Your task to perform on an android device: Show me productivity apps on the Play Store Image 0: 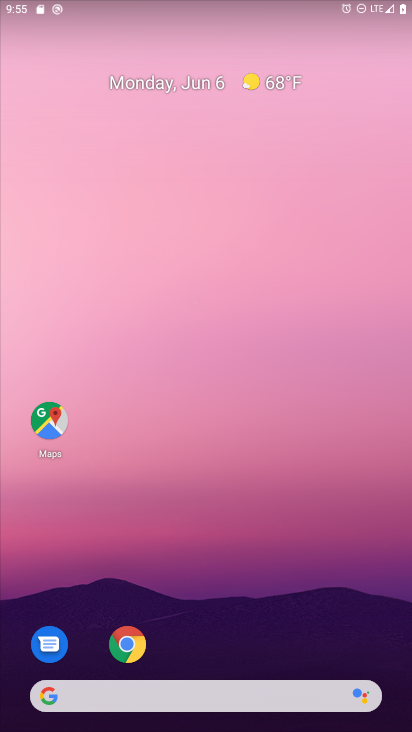
Step 0: drag from (242, 719) to (182, 100)
Your task to perform on an android device: Show me productivity apps on the Play Store Image 1: 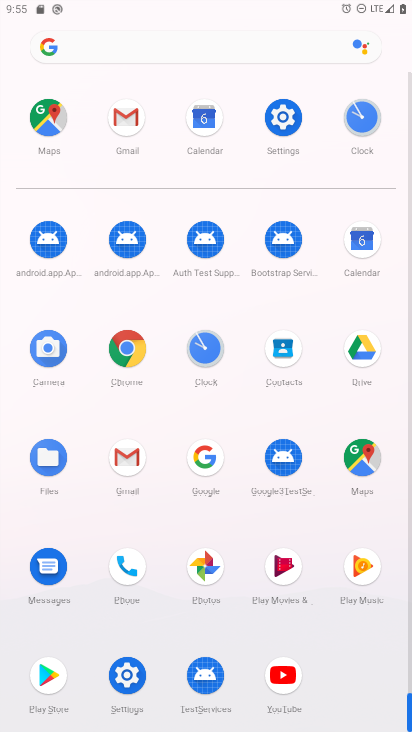
Step 1: click (48, 660)
Your task to perform on an android device: Show me productivity apps on the Play Store Image 2: 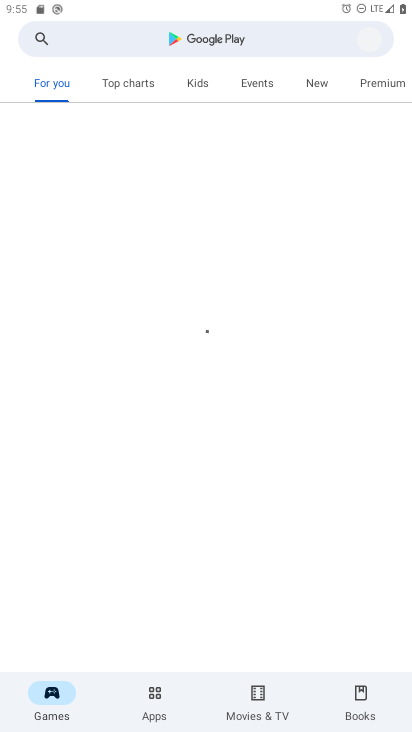
Step 2: click (210, 30)
Your task to perform on an android device: Show me productivity apps on the Play Store Image 3: 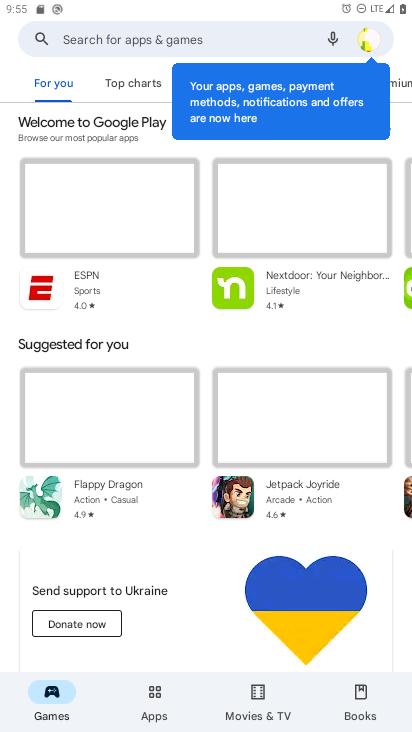
Step 3: click (130, 40)
Your task to perform on an android device: Show me productivity apps on the Play Store Image 4: 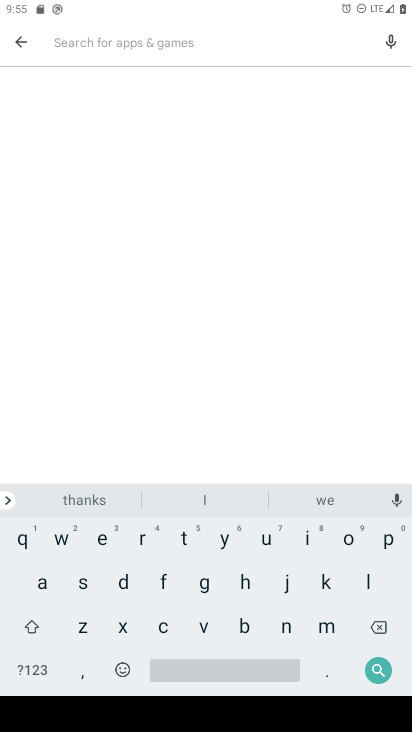
Step 4: click (381, 546)
Your task to perform on an android device: Show me productivity apps on the Play Store Image 5: 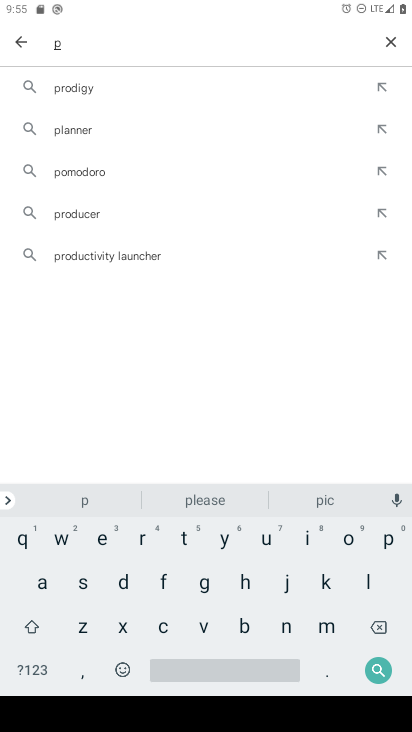
Step 5: click (142, 530)
Your task to perform on an android device: Show me productivity apps on the Play Store Image 6: 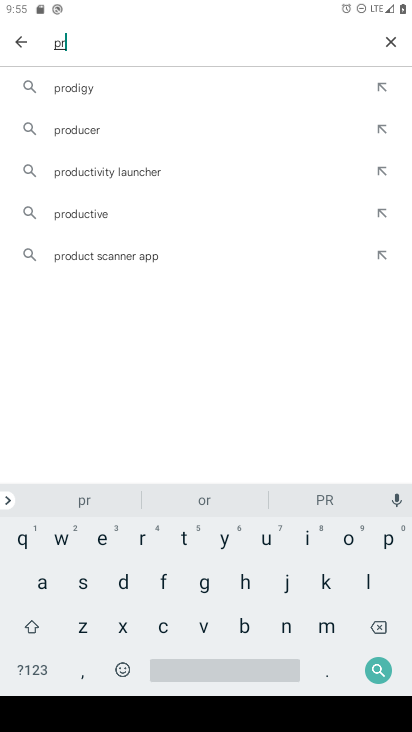
Step 6: click (134, 165)
Your task to perform on an android device: Show me productivity apps on the Play Store Image 7: 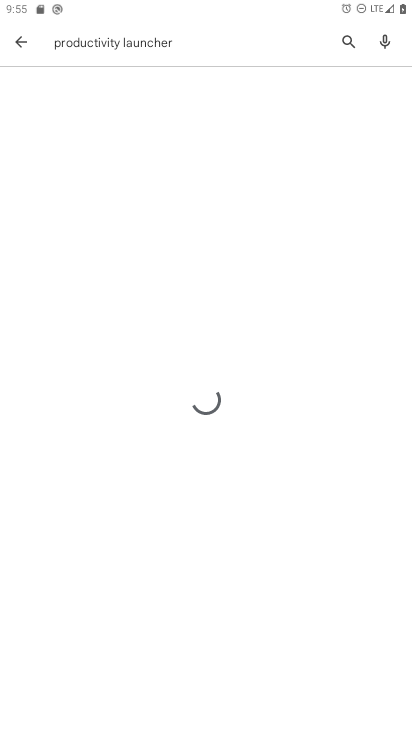
Step 7: click (225, 45)
Your task to perform on an android device: Show me productivity apps on the Play Store Image 8: 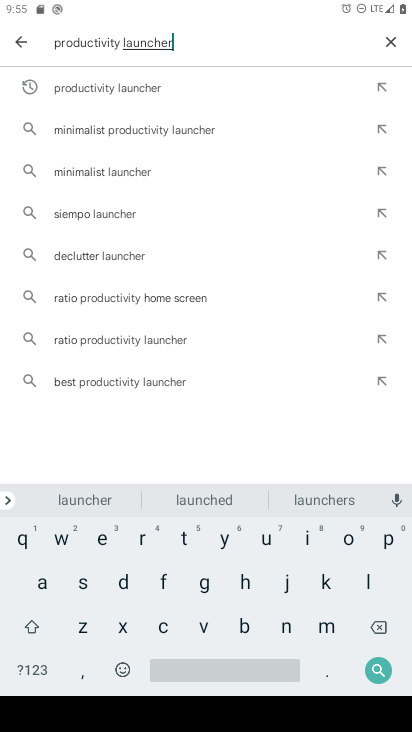
Step 8: click (372, 629)
Your task to perform on an android device: Show me productivity apps on the Play Store Image 9: 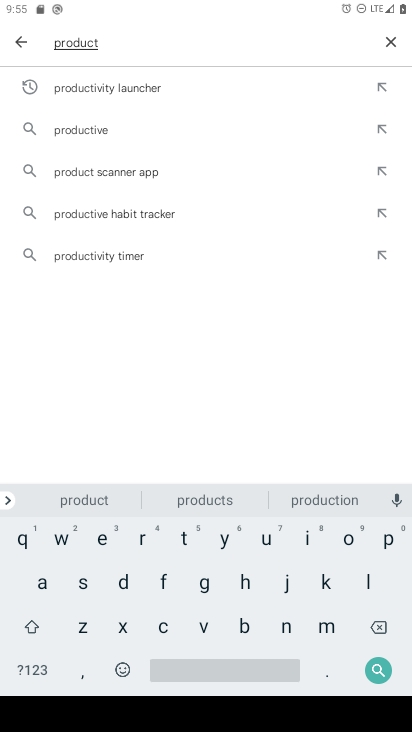
Step 9: drag from (134, 164) to (131, 347)
Your task to perform on an android device: Show me productivity apps on the Play Store Image 10: 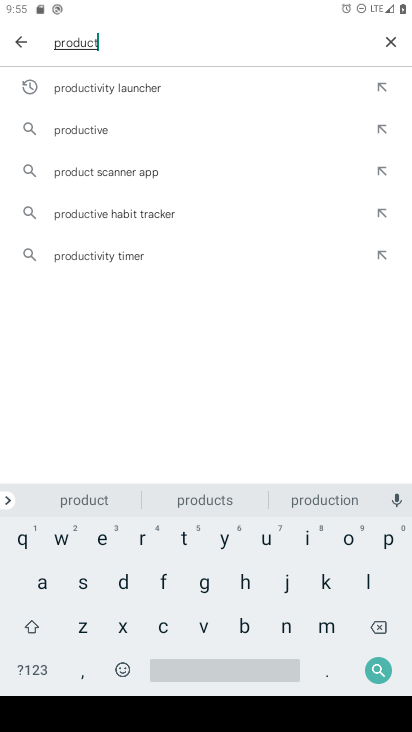
Step 10: click (303, 534)
Your task to perform on an android device: Show me productivity apps on the Play Store Image 11: 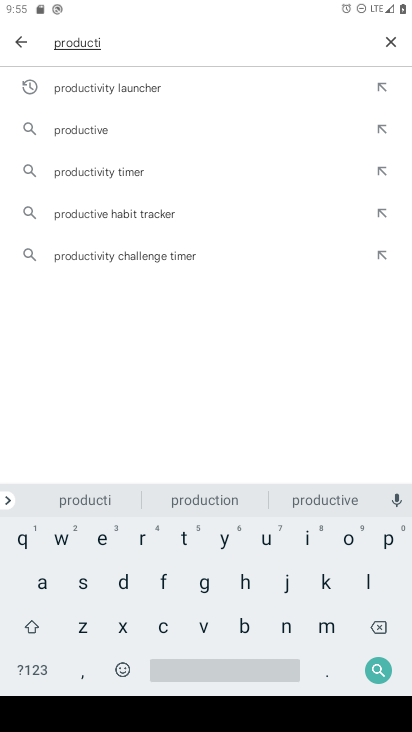
Step 11: click (204, 625)
Your task to perform on an android device: Show me productivity apps on the Play Store Image 12: 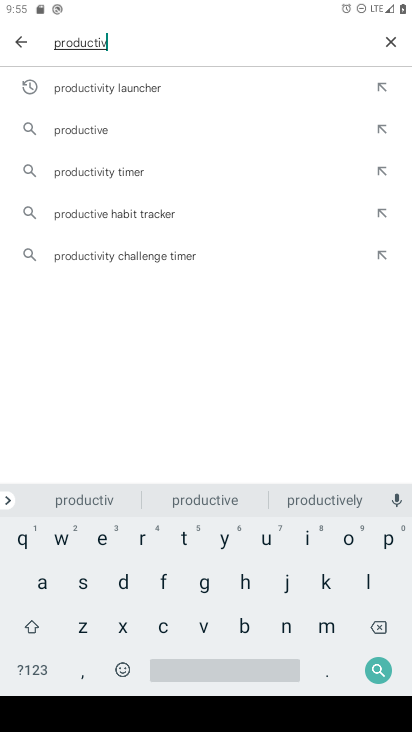
Step 12: click (313, 494)
Your task to perform on an android device: Show me productivity apps on the Play Store Image 13: 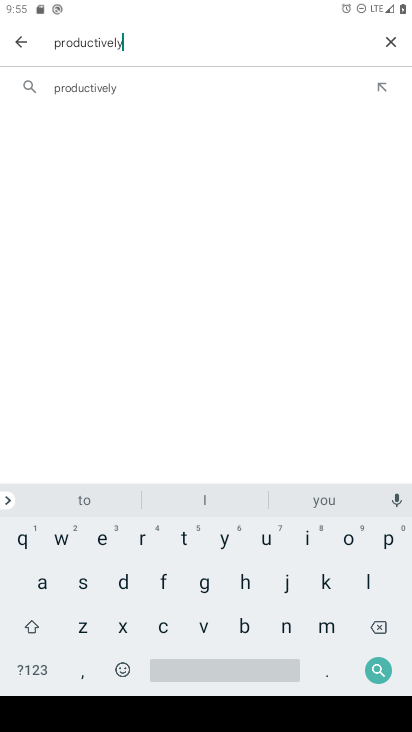
Step 13: click (41, 580)
Your task to perform on an android device: Show me productivity apps on the Play Store Image 14: 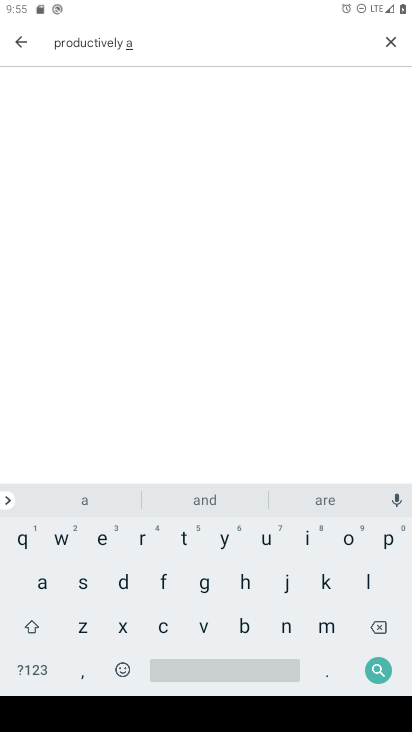
Step 14: click (386, 542)
Your task to perform on an android device: Show me productivity apps on the Play Store Image 15: 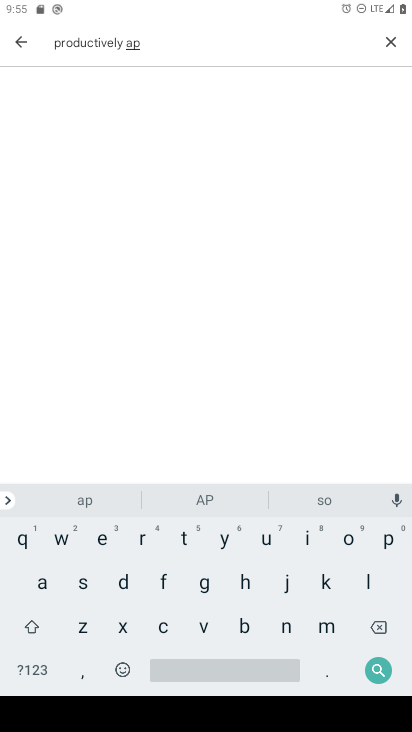
Step 15: click (386, 544)
Your task to perform on an android device: Show me productivity apps on the Play Store Image 16: 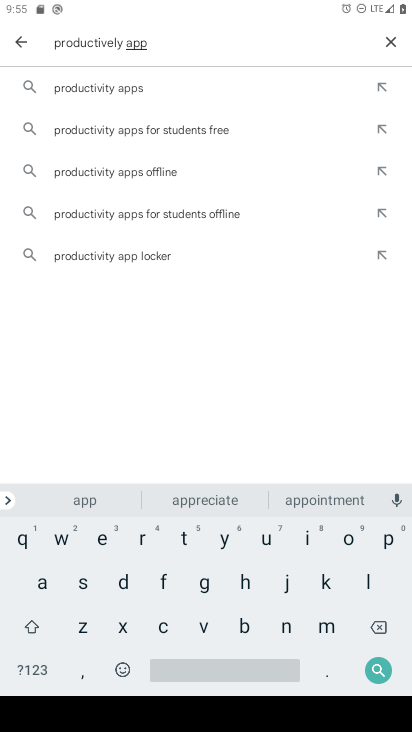
Step 16: click (86, 581)
Your task to perform on an android device: Show me productivity apps on the Play Store Image 17: 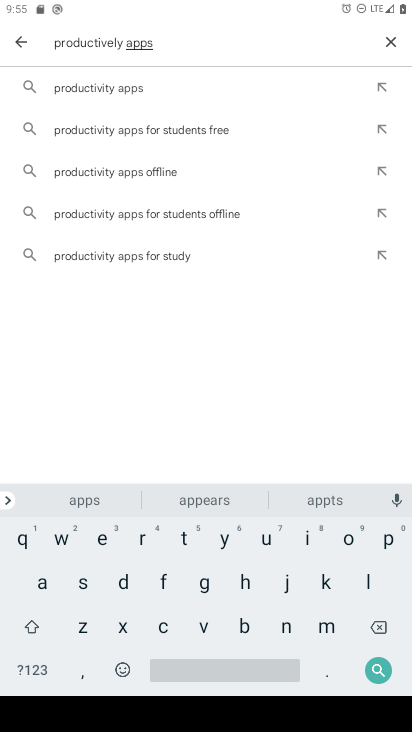
Step 17: click (112, 41)
Your task to perform on an android device: Show me productivity apps on the Play Store Image 18: 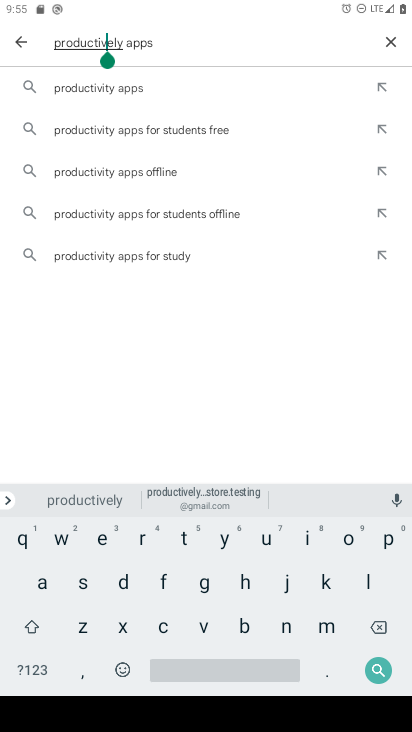
Step 18: click (111, 42)
Your task to perform on an android device: Show me productivity apps on the Play Store Image 19: 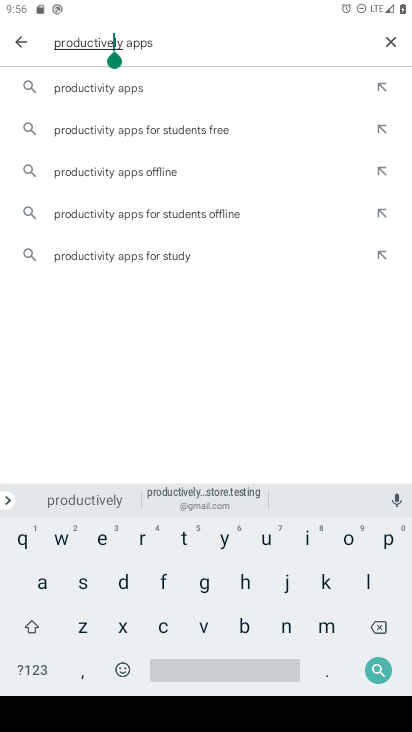
Step 19: click (118, 38)
Your task to perform on an android device: Show me productivity apps on the Play Store Image 20: 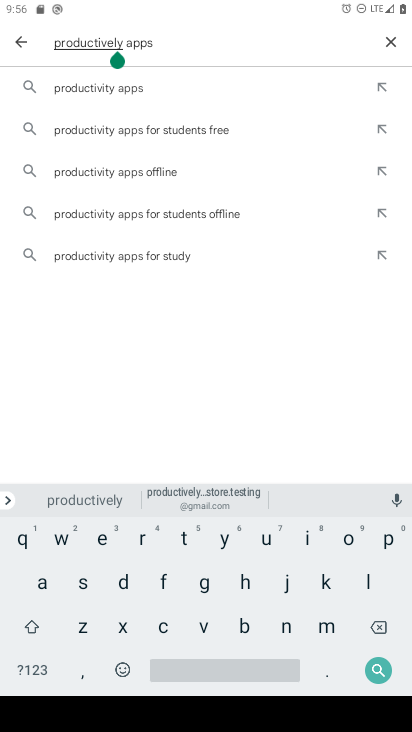
Step 20: click (117, 50)
Your task to perform on an android device: Show me productivity apps on the Play Store Image 21: 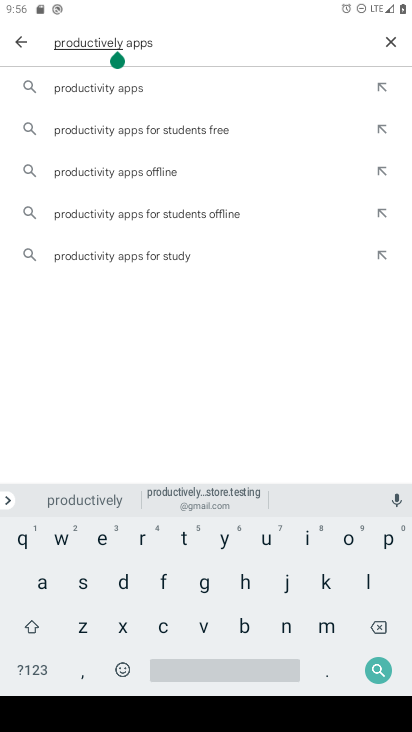
Step 21: click (383, 629)
Your task to perform on an android device: Show me productivity apps on the Play Store Image 22: 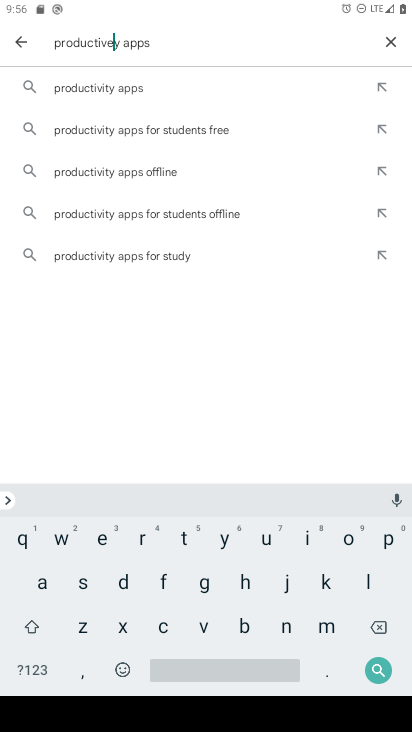
Step 22: click (187, 539)
Your task to perform on an android device: Show me productivity apps on the Play Store Image 23: 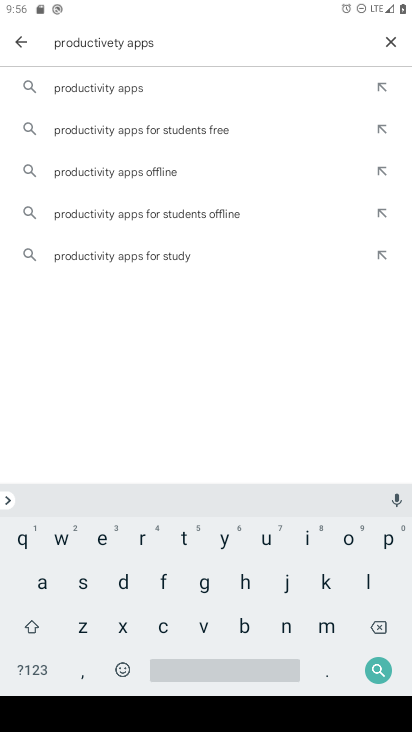
Step 23: click (145, 88)
Your task to perform on an android device: Show me productivity apps on the Play Store Image 24: 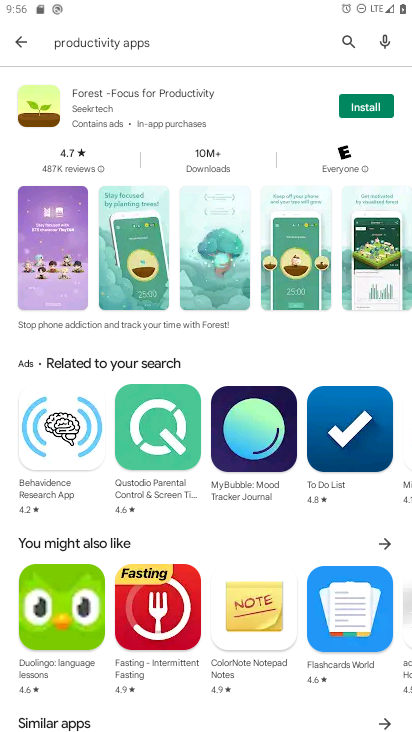
Step 24: task complete